Your task to perform on an android device: Find coffee shops on Maps Image 0: 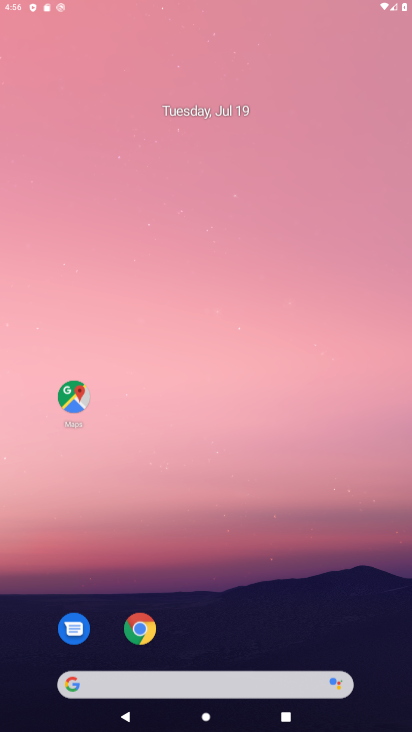
Step 0: press home button
Your task to perform on an android device: Find coffee shops on Maps Image 1: 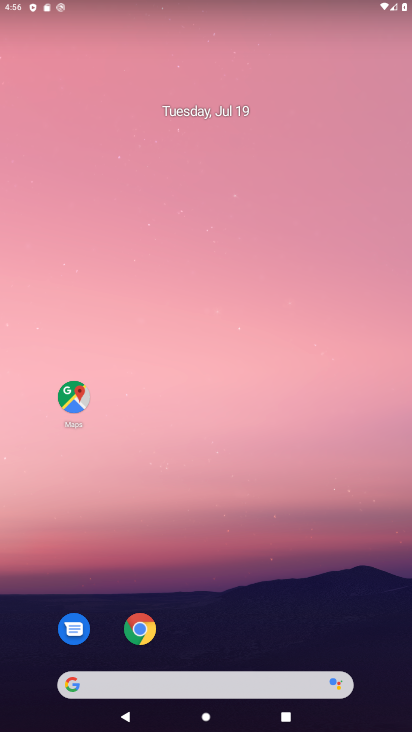
Step 1: drag from (210, 122) to (146, 2)
Your task to perform on an android device: Find coffee shops on Maps Image 2: 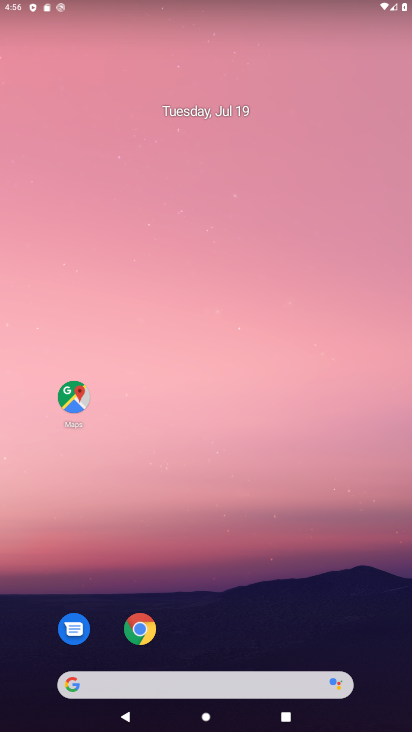
Step 2: drag from (244, 645) to (161, 22)
Your task to perform on an android device: Find coffee shops on Maps Image 3: 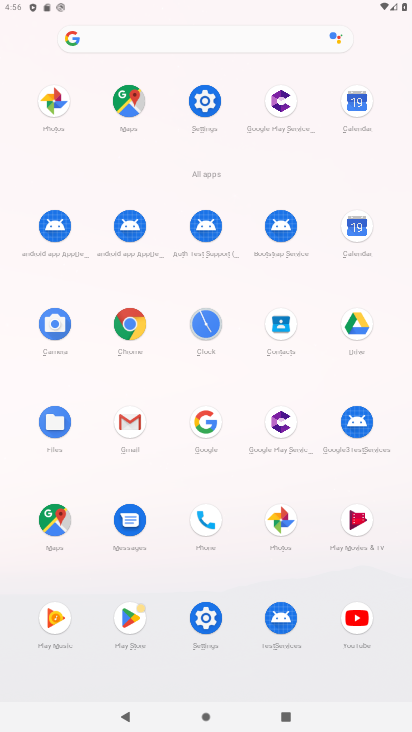
Step 3: click (132, 101)
Your task to perform on an android device: Find coffee shops on Maps Image 4: 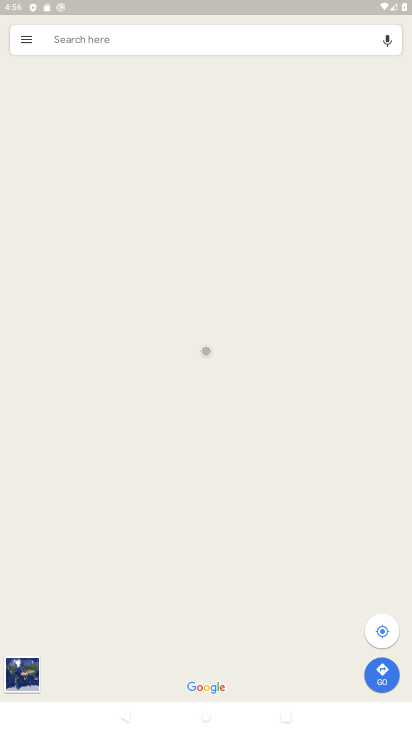
Step 4: click (117, 39)
Your task to perform on an android device: Find coffee shops on Maps Image 5: 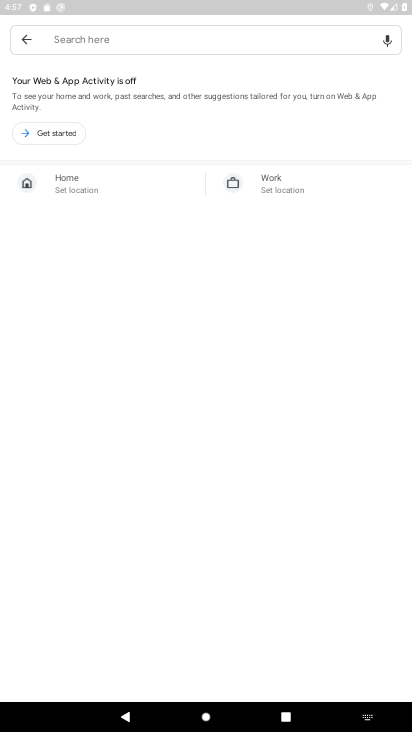
Step 5: click (50, 132)
Your task to perform on an android device: Find coffee shops on Maps Image 6: 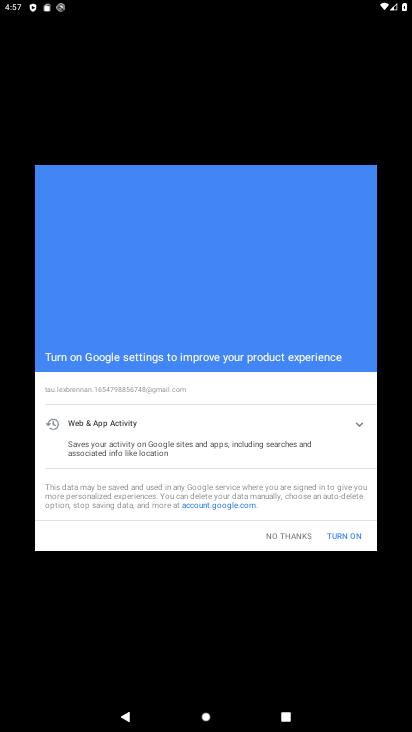
Step 6: task complete